Your task to perform on an android device: remove spam from my inbox in the gmail app Image 0: 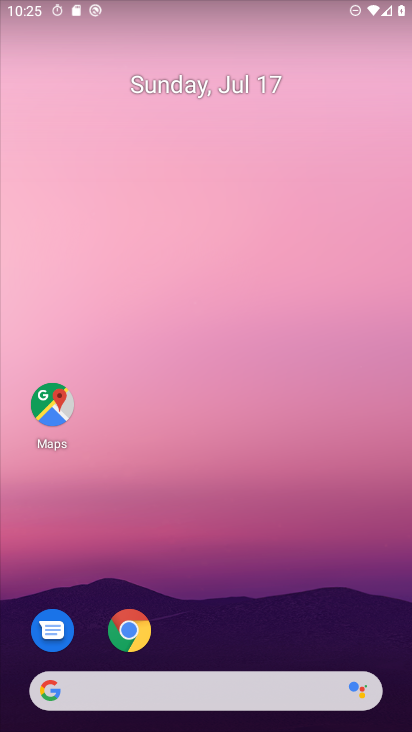
Step 0: drag from (194, 671) to (193, 68)
Your task to perform on an android device: remove spam from my inbox in the gmail app Image 1: 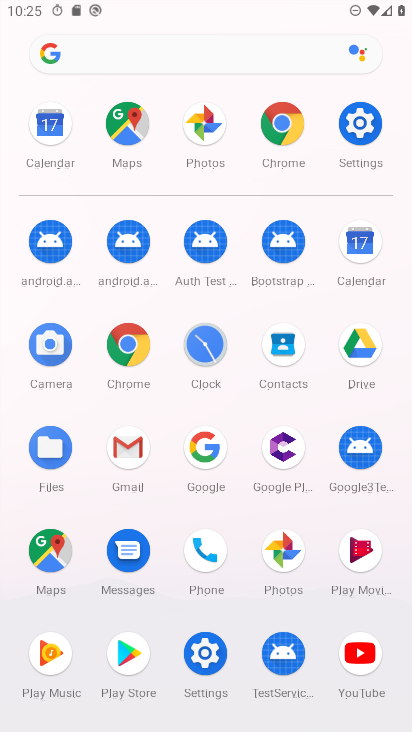
Step 1: click (128, 448)
Your task to perform on an android device: remove spam from my inbox in the gmail app Image 2: 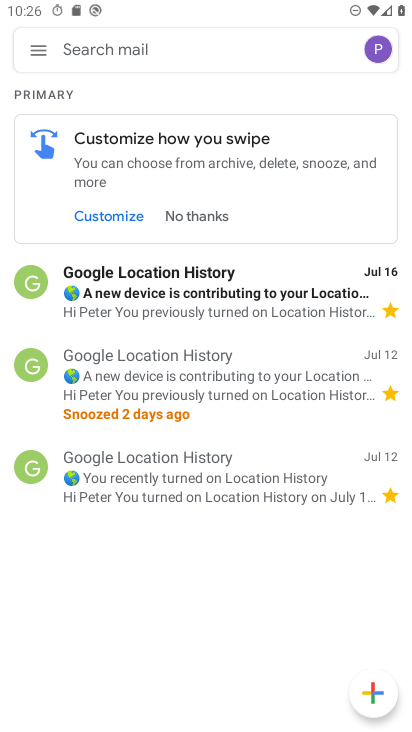
Step 2: click (28, 41)
Your task to perform on an android device: remove spam from my inbox in the gmail app Image 3: 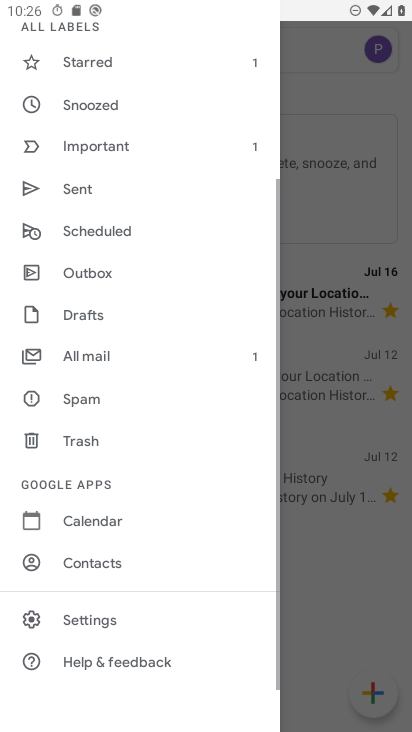
Step 3: click (80, 387)
Your task to perform on an android device: remove spam from my inbox in the gmail app Image 4: 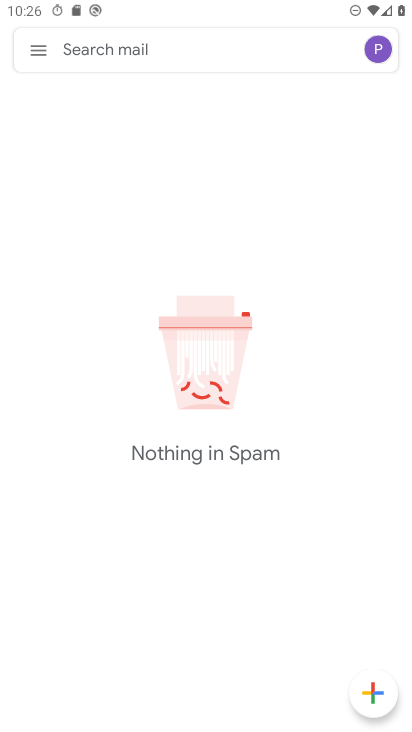
Step 4: task complete